Your task to perform on an android device: find photos in the google photos app Image 0: 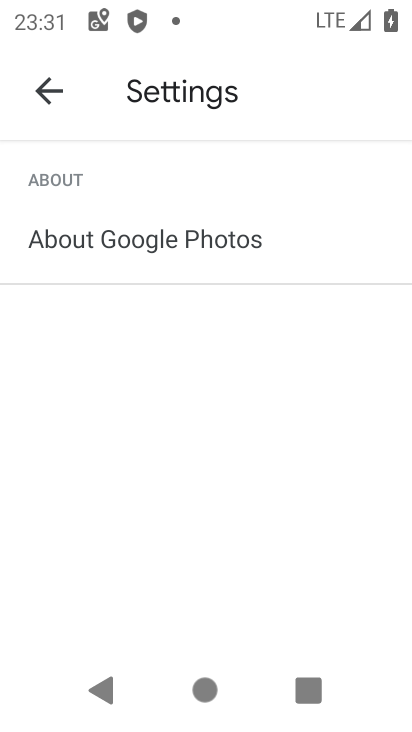
Step 0: press home button
Your task to perform on an android device: find photos in the google photos app Image 1: 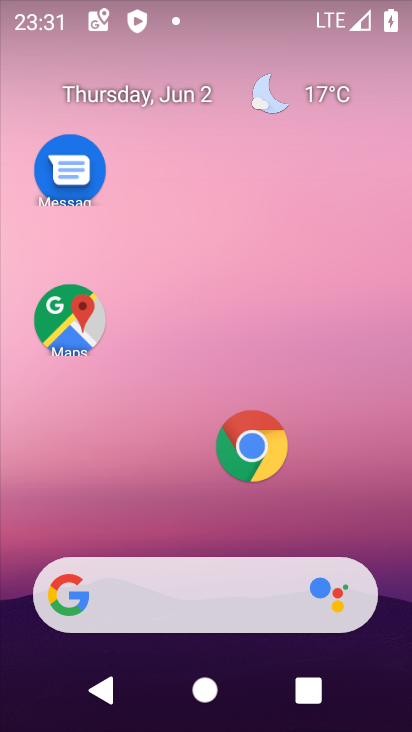
Step 1: drag from (401, 514) to (369, 138)
Your task to perform on an android device: find photos in the google photos app Image 2: 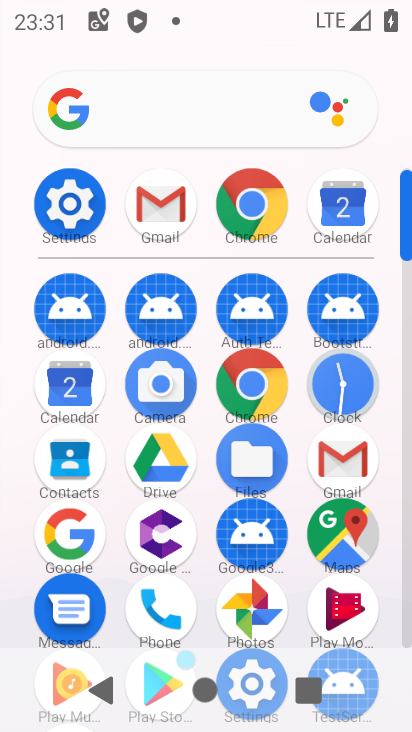
Step 2: click (266, 598)
Your task to perform on an android device: find photos in the google photos app Image 3: 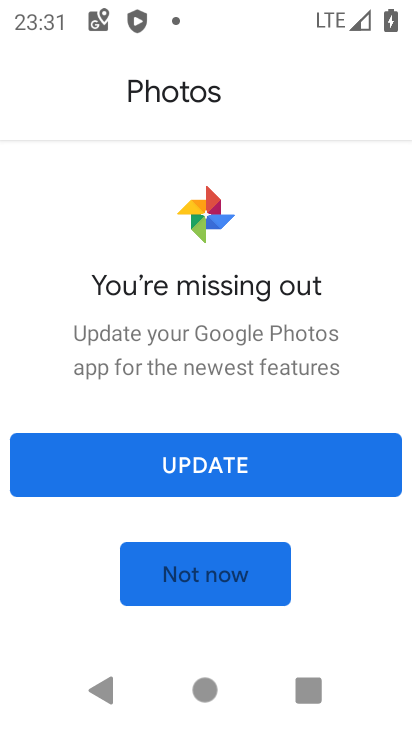
Step 3: click (230, 450)
Your task to perform on an android device: find photos in the google photos app Image 4: 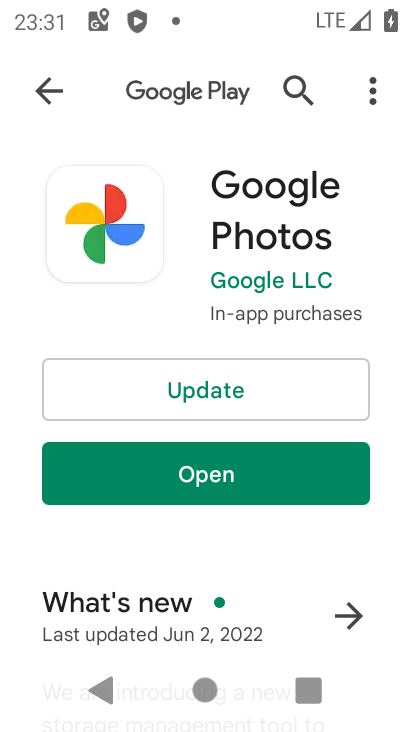
Step 4: click (230, 407)
Your task to perform on an android device: find photos in the google photos app Image 5: 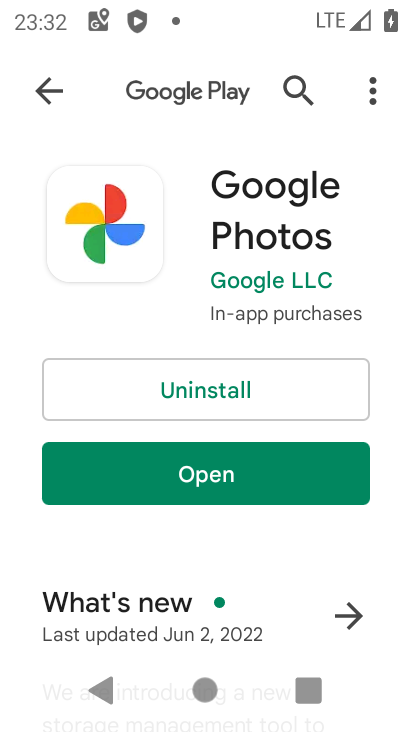
Step 5: click (302, 467)
Your task to perform on an android device: find photos in the google photos app Image 6: 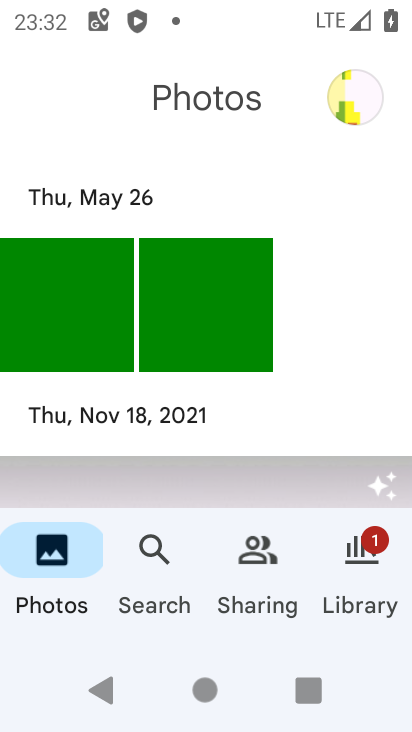
Step 6: task complete